Your task to perform on an android device: add a contact Image 0: 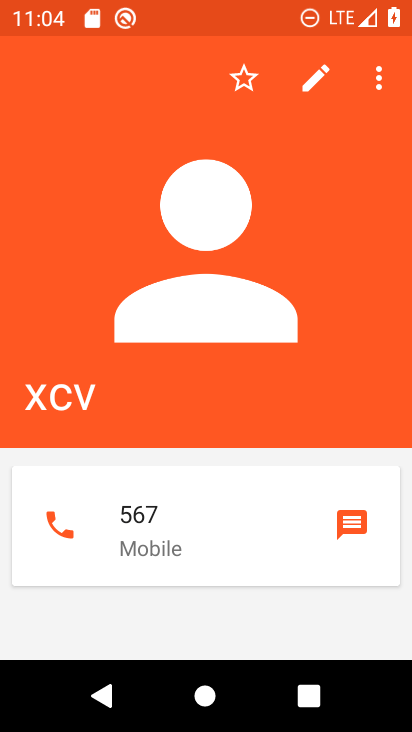
Step 0: press home button
Your task to perform on an android device: add a contact Image 1: 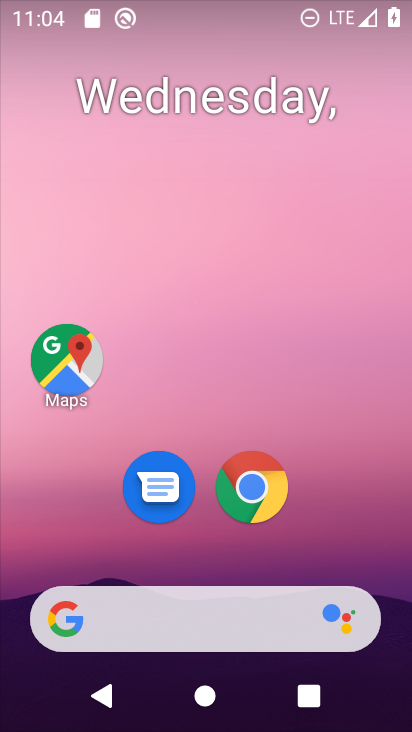
Step 1: drag from (338, 523) to (163, 51)
Your task to perform on an android device: add a contact Image 2: 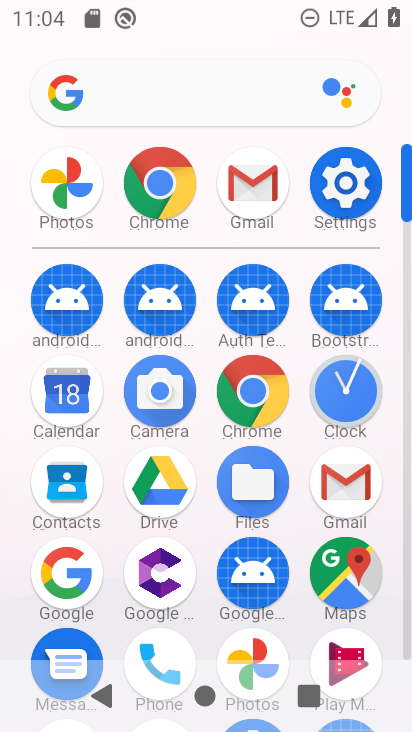
Step 2: click (64, 473)
Your task to perform on an android device: add a contact Image 3: 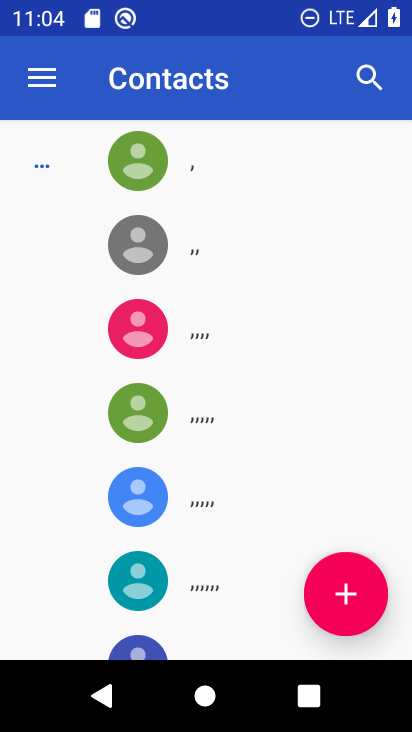
Step 3: click (343, 594)
Your task to perform on an android device: add a contact Image 4: 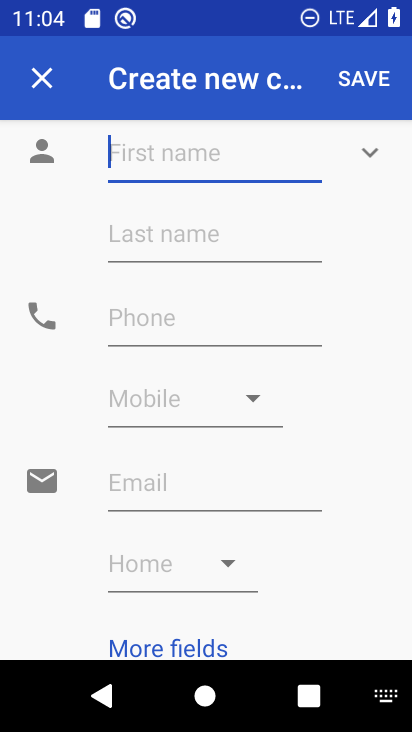
Step 4: type "ershkgfjdgfgjfhdg"
Your task to perform on an android device: add a contact Image 5: 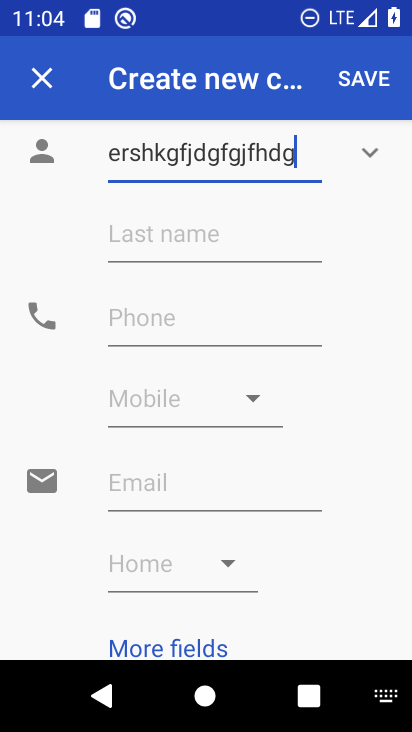
Step 5: click (144, 318)
Your task to perform on an android device: add a contact Image 6: 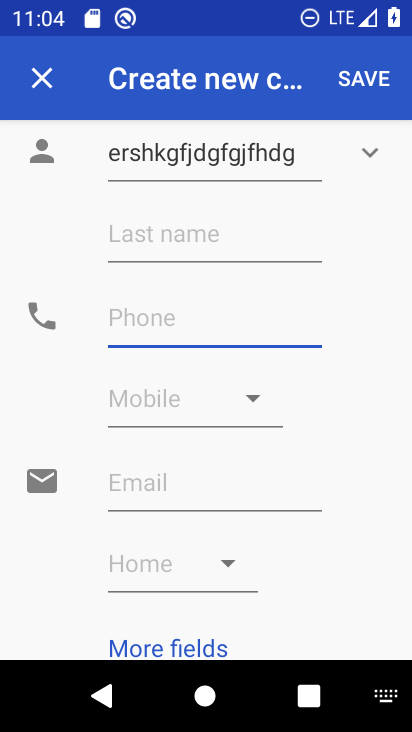
Step 6: type "9876543245678"
Your task to perform on an android device: add a contact Image 7: 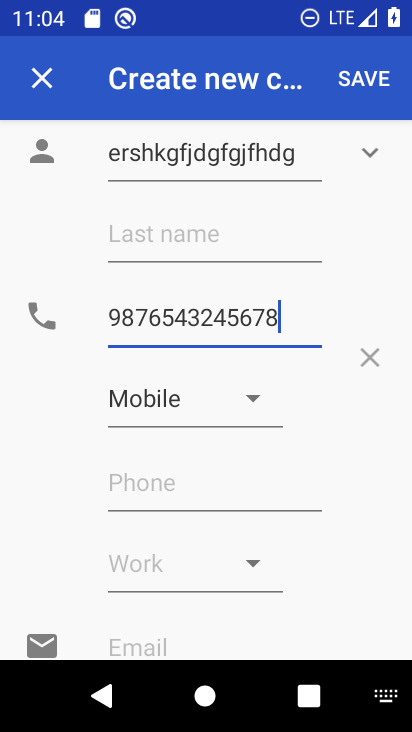
Step 7: click (365, 72)
Your task to perform on an android device: add a contact Image 8: 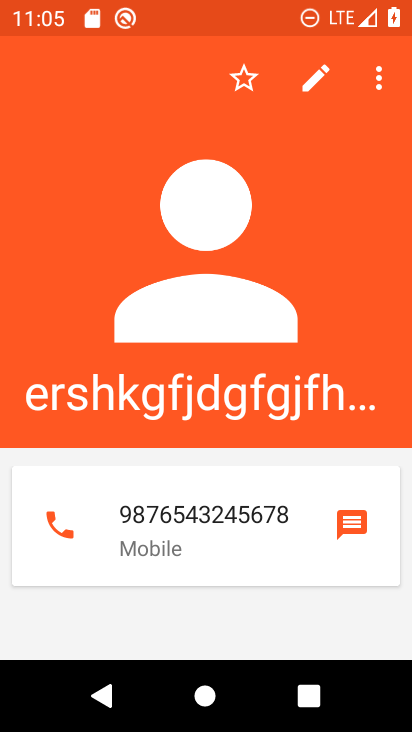
Step 8: task complete